Your task to perform on an android device: Go to internet settings Image 0: 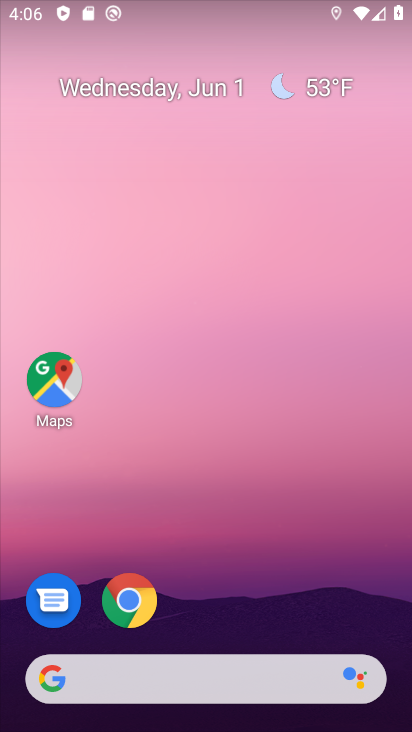
Step 0: drag from (213, 636) to (82, 256)
Your task to perform on an android device: Go to internet settings Image 1: 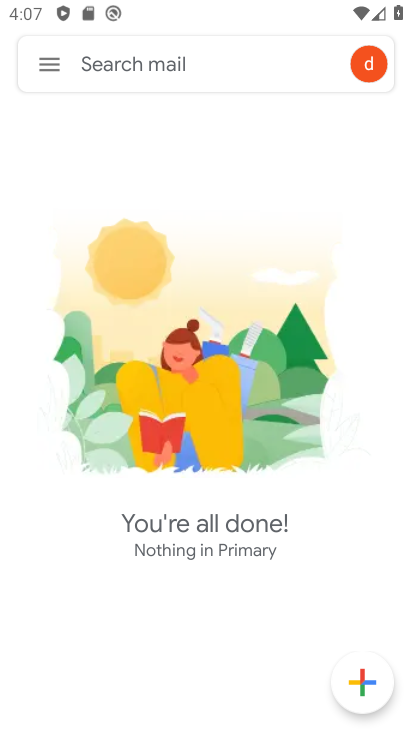
Step 1: press back button
Your task to perform on an android device: Go to internet settings Image 2: 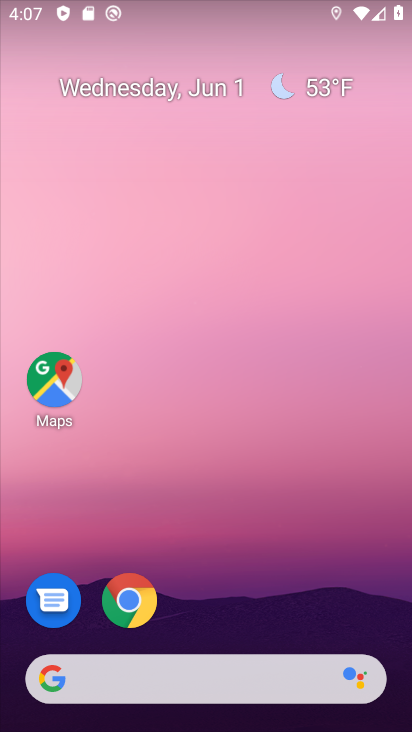
Step 2: drag from (224, 666) to (41, 128)
Your task to perform on an android device: Go to internet settings Image 3: 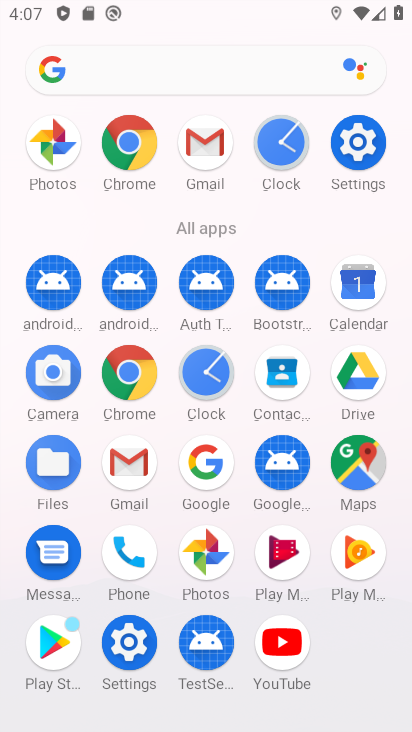
Step 3: click (361, 140)
Your task to perform on an android device: Go to internet settings Image 4: 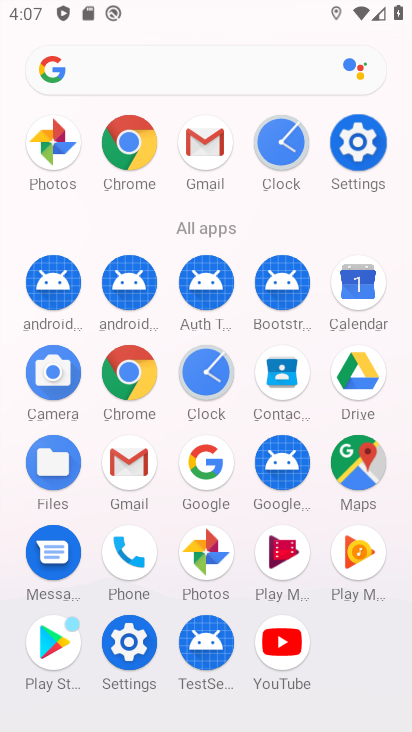
Step 4: click (351, 166)
Your task to perform on an android device: Go to internet settings Image 5: 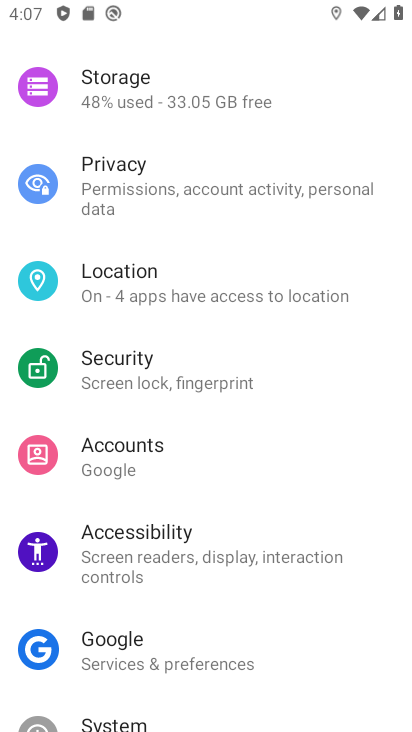
Step 5: drag from (166, 156) to (196, 343)
Your task to perform on an android device: Go to internet settings Image 6: 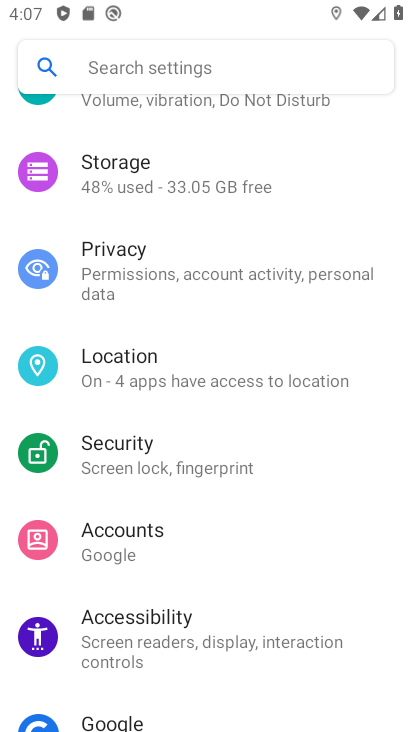
Step 6: drag from (160, 184) to (188, 292)
Your task to perform on an android device: Go to internet settings Image 7: 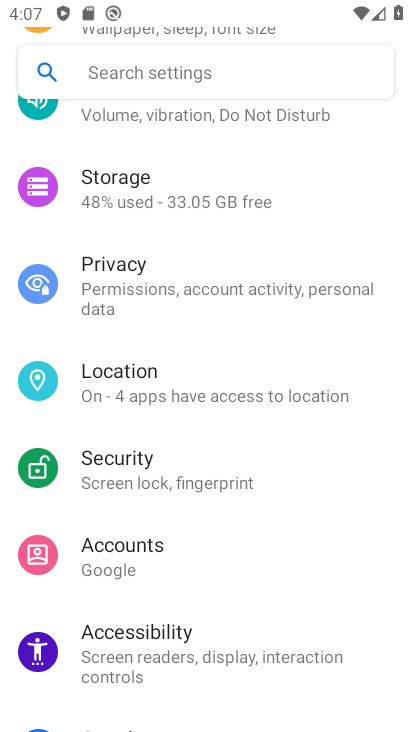
Step 7: click (192, 302)
Your task to perform on an android device: Go to internet settings Image 8: 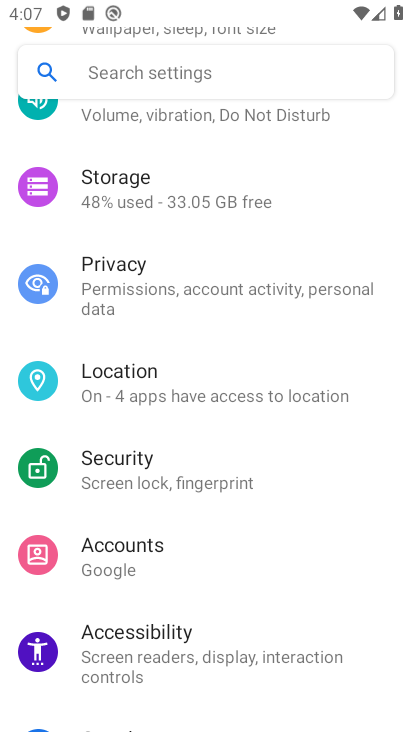
Step 8: drag from (154, 181) to (201, 420)
Your task to perform on an android device: Go to internet settings Image 9: 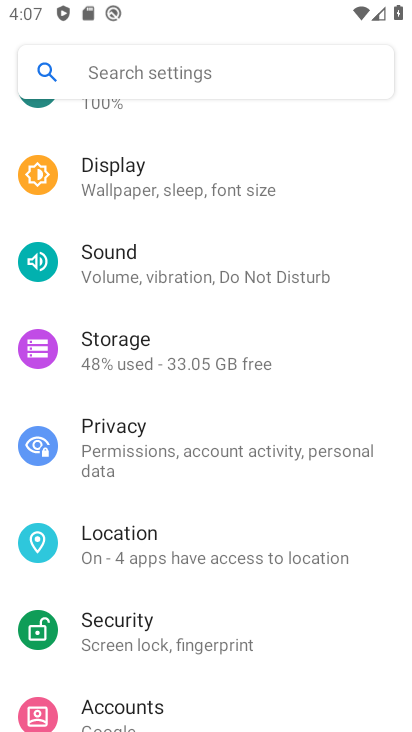
Step 9: drag from (146, 233) to (204, 382)
Your task to perform on an android device: Go to internet settings Image 10: 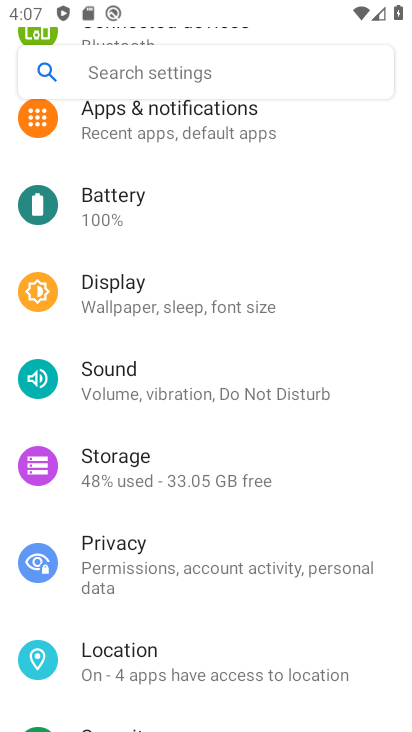
Step 10: drag from (208, 328) to (255, 490)
Your task to perform on an android device: Go to internet settings Image 11: 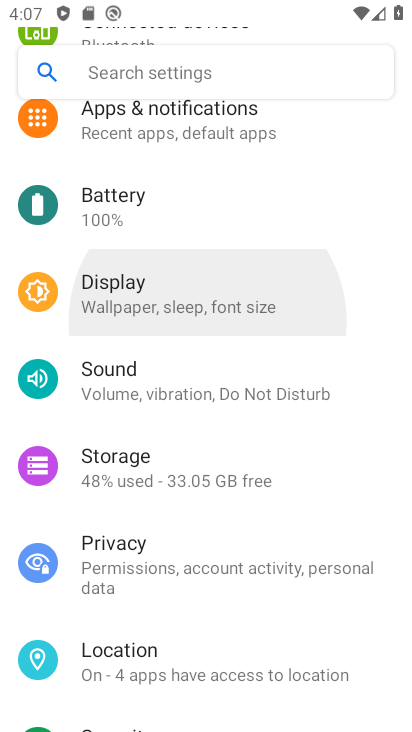
Step 11: drag from (135, 260) to (194, 513)
Your task to perform on an android device: Go to internet settings Image 12: 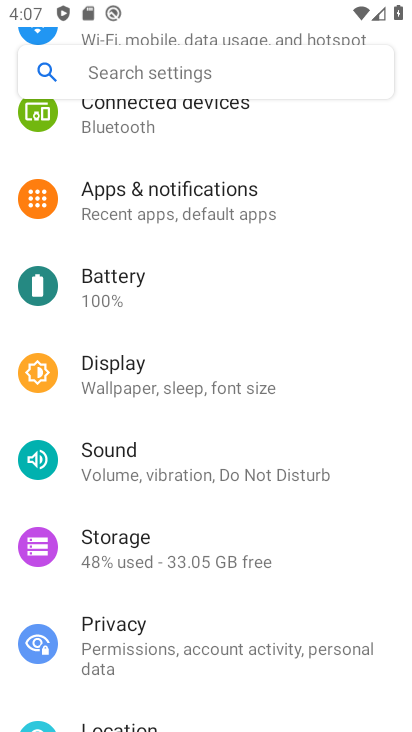
Step 12: drag from (130, 316) to (158, 493)
Your task to perform on an android device: Go to internet settings Image 13: 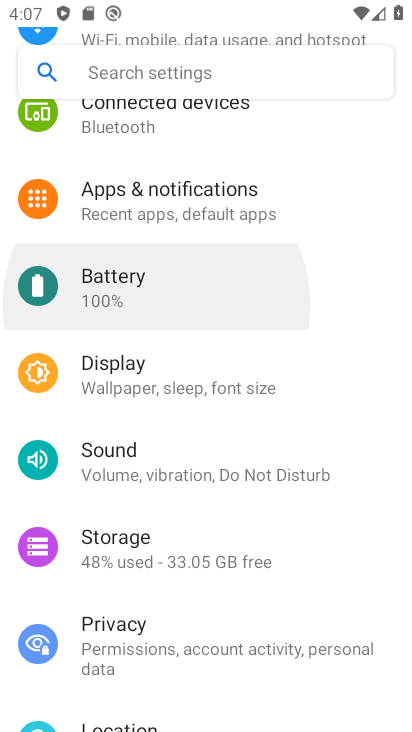
Step 13: drag from (94, 335) to (162, 557)
Your task to perform on an android device: Go to internet settings Image 14: 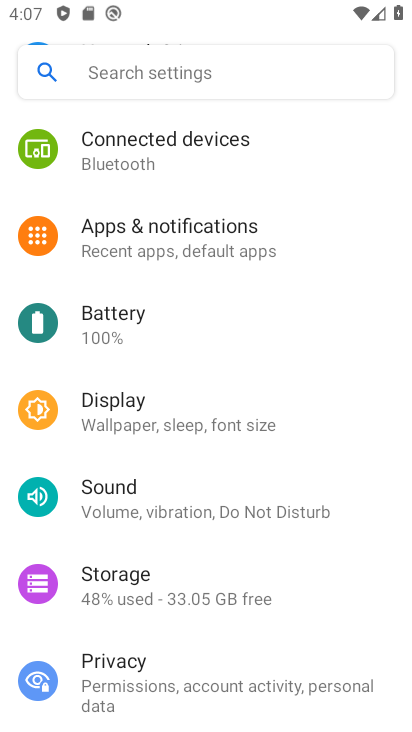
Step 14: drag from (147, 301) to (211, 589)
Your task to perform on an android device: Go to internet settings Image 15: 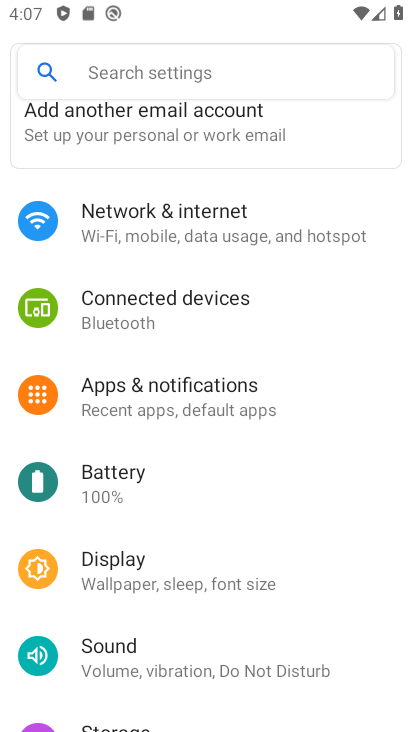
Step 15: drag from (167, 277) to (250, 519)
Your task to perform on an android device: Go to internet settings Image 16: 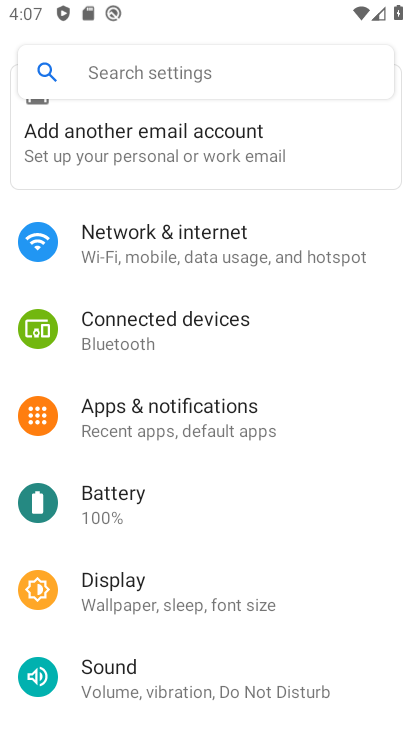
Step 16: drag from (170, 164) to (183, 387)
Your task to perform on an android device: Go to internet settings Image 17: 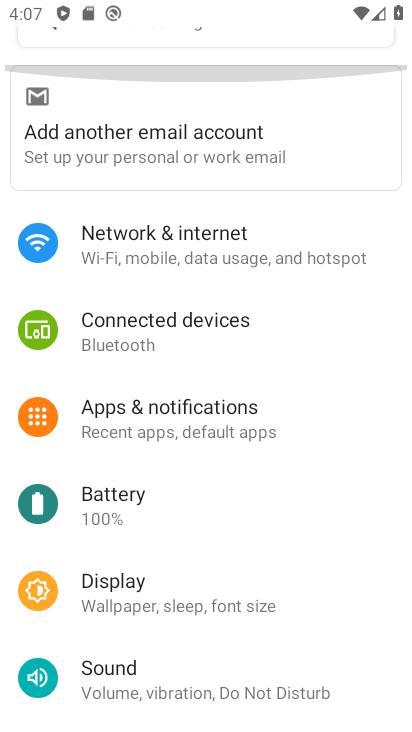
Step 17: drag from (60, 154) to (91, 385)
Your task to perform on an android device: Go to internet settings Image 18: 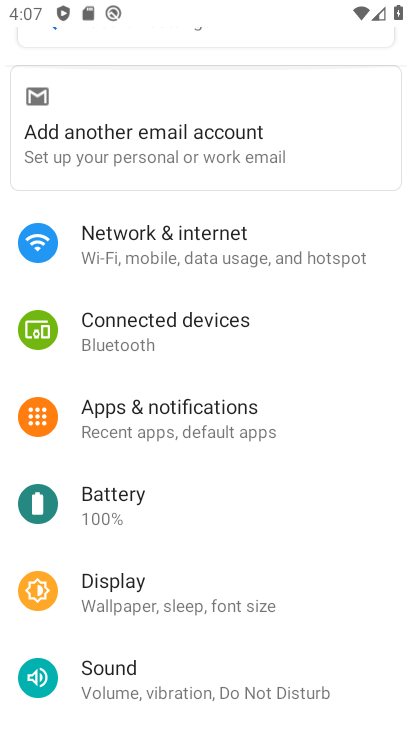
Step 18: drag from (120, 186) to (192, 338)
Your task to perform on an android device: Go to internet settings Image 19: 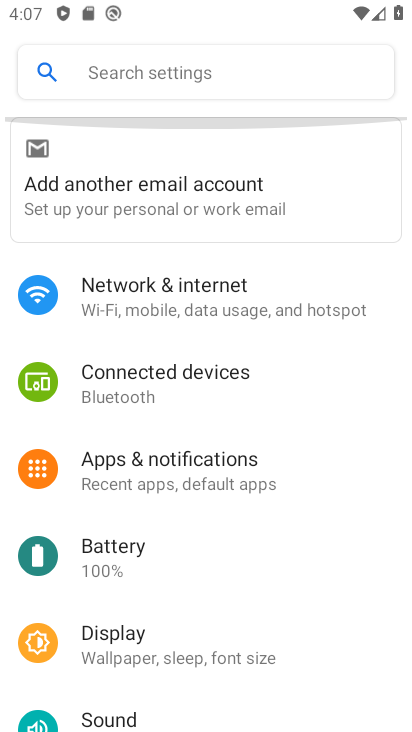
Step 19: drag from (174, 262) to (202, 614)
Your task to perform on an android device: Go to internet settings Image 20: 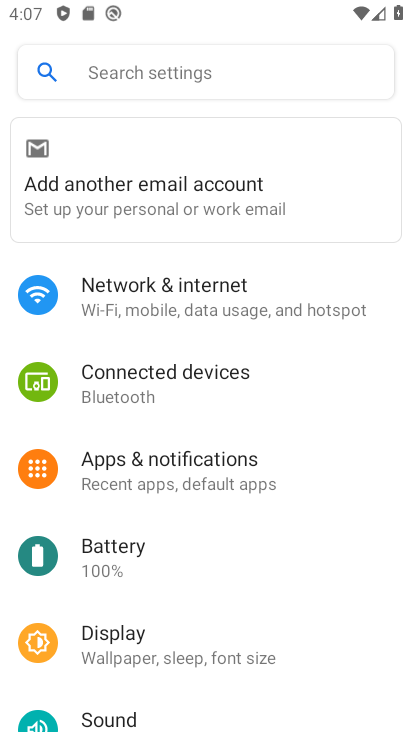
Step 20: click (191, 291)
Your task to perform on an android device: Go to internet settings Image 21: 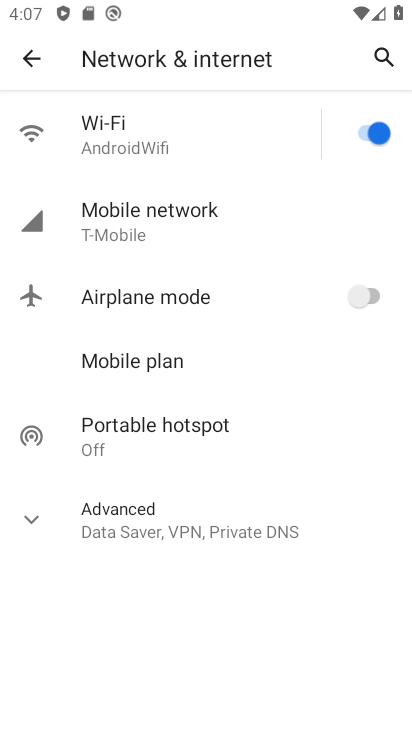
Step 21: task complete